Your task to perform on an android device: Open Google Maps Image 0: 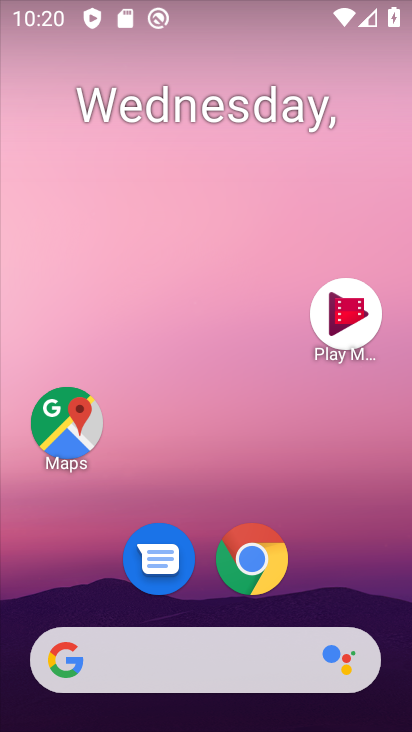
Step 0: click (73, 433)
Your task to perform on an android device: Open Google Maps Image 1: 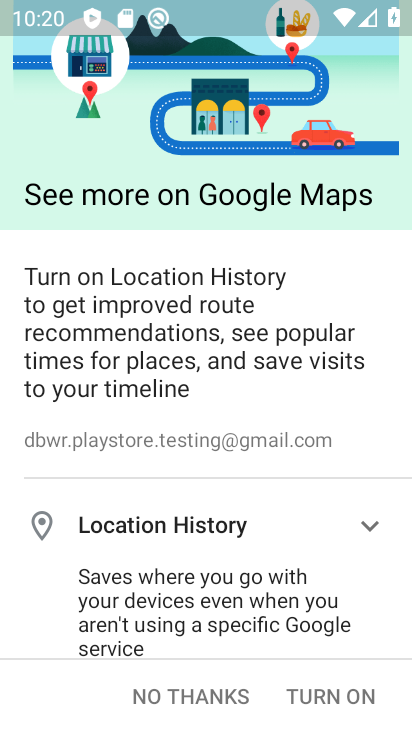
Step 1: click (176, 695)
Your task to perform on an android device: Open Google Maps Image 2: 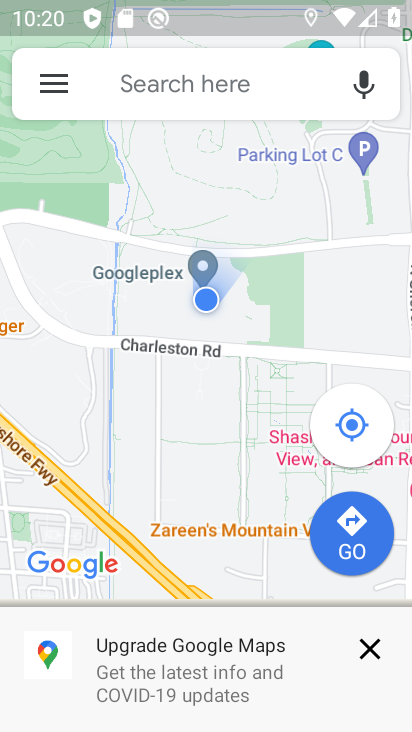
Step 2: click (363, 646)
Your task to perform on an android device: Open Google Maps Image 3: 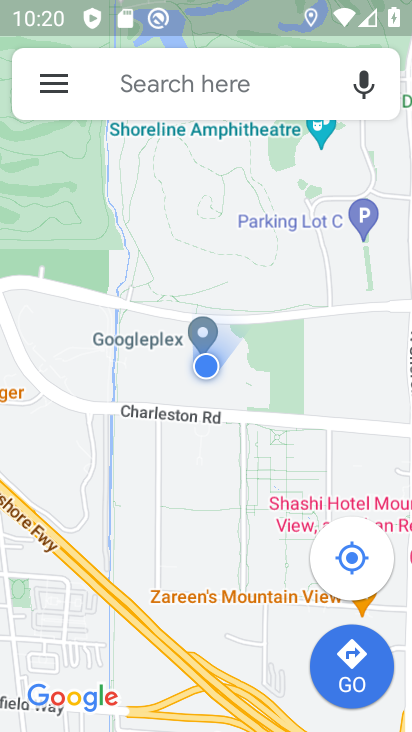
Step 3: task complete